Your task to perform on an android device: Add "alienware aurora" to the cart on ebay, then select checkout. Image 0: 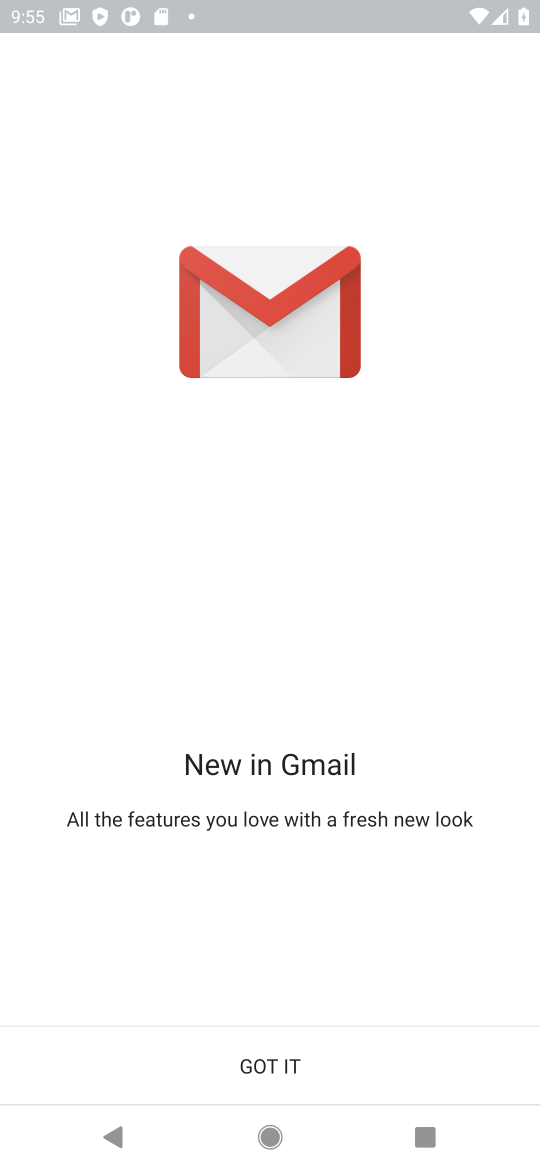
Step 0: press home button
Your task to perform on an android device: Add "alienware aurora" to the cart on ebay, then select checkout. Image 1: 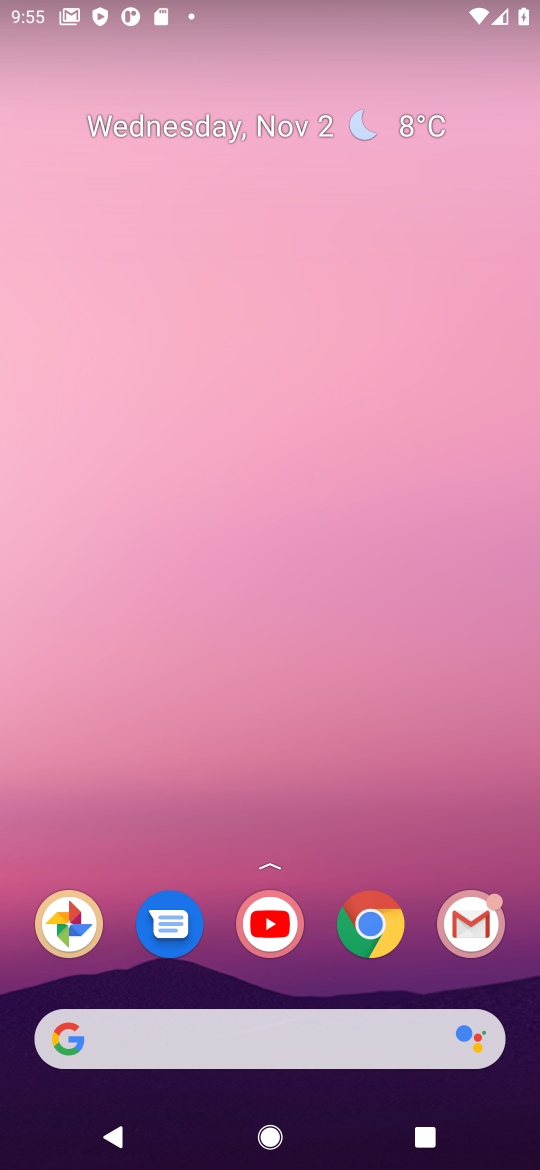
Step 1: click (381, 941)
Your task to perform on an android device: Add "alienware aurora" to the cart on ebay, then select checkout. Image 2: 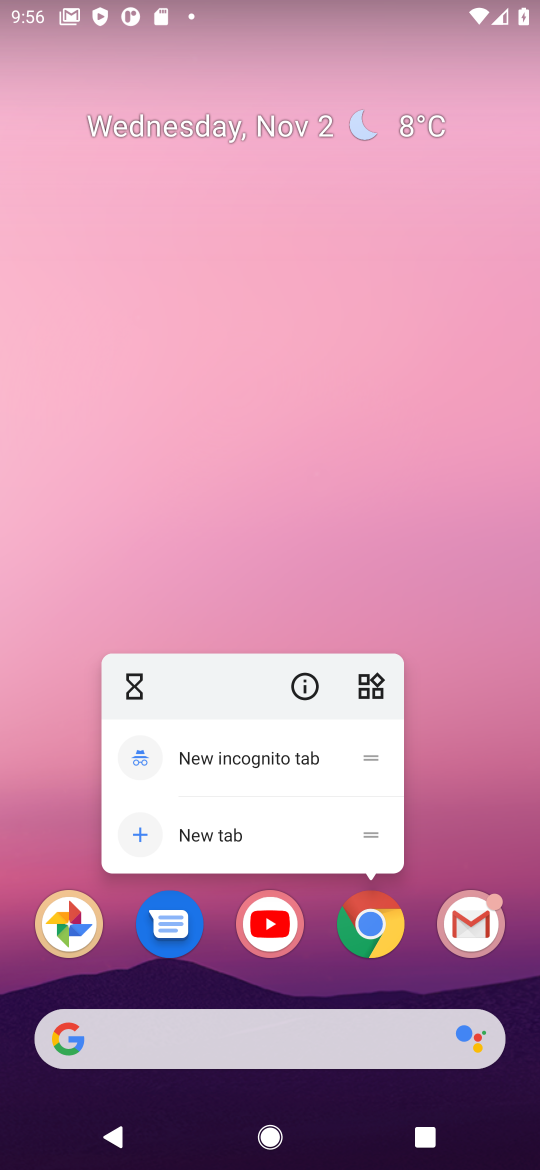
Step 2: click (381, 935)
Your task to perform on an android device: Add "alienware aurora" to the cart on ebay, then select checkout. Image 3: 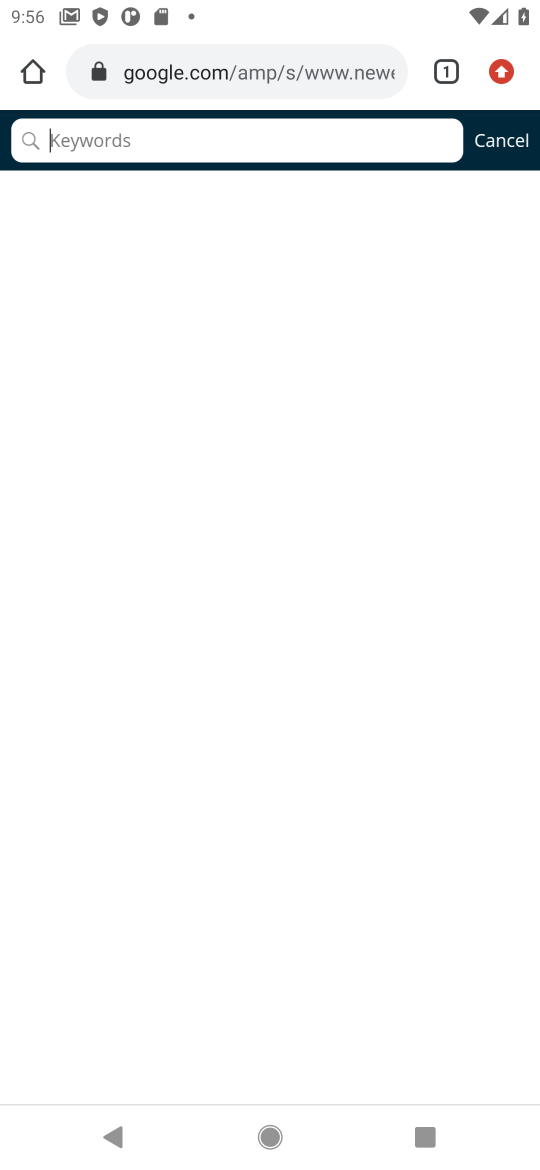
Step 3: click (162, 78)
Your task to perform on an android device: Add "alienware aurora" to the cart on ebay, then select checkout. Image 4: 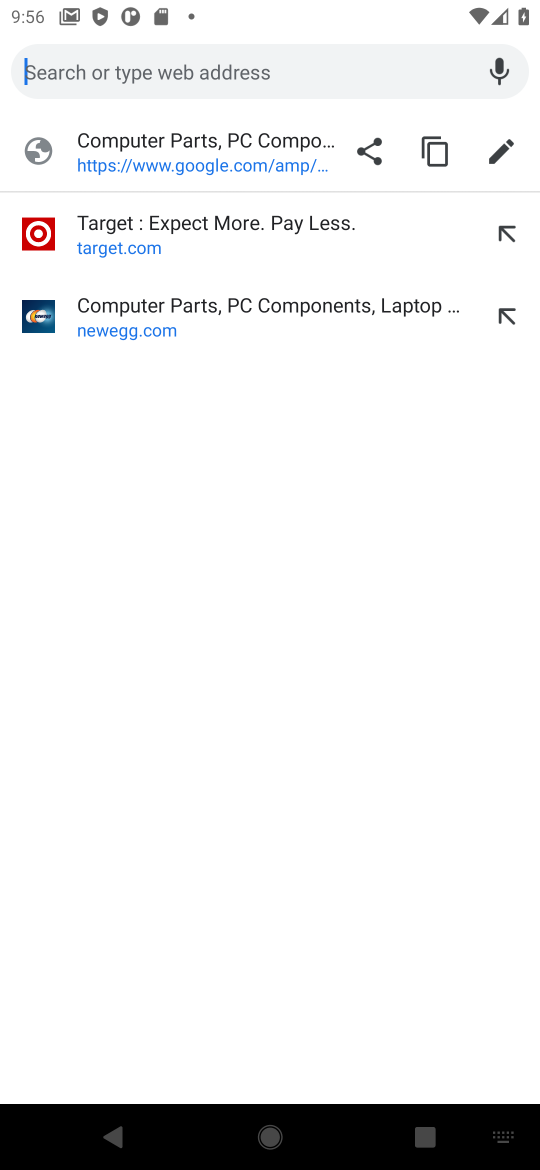
Step 4: type "ebay"
Your task to perform on an android device: Add "alienware aurora" to the cart on ebay, then select checkout. Image 5: 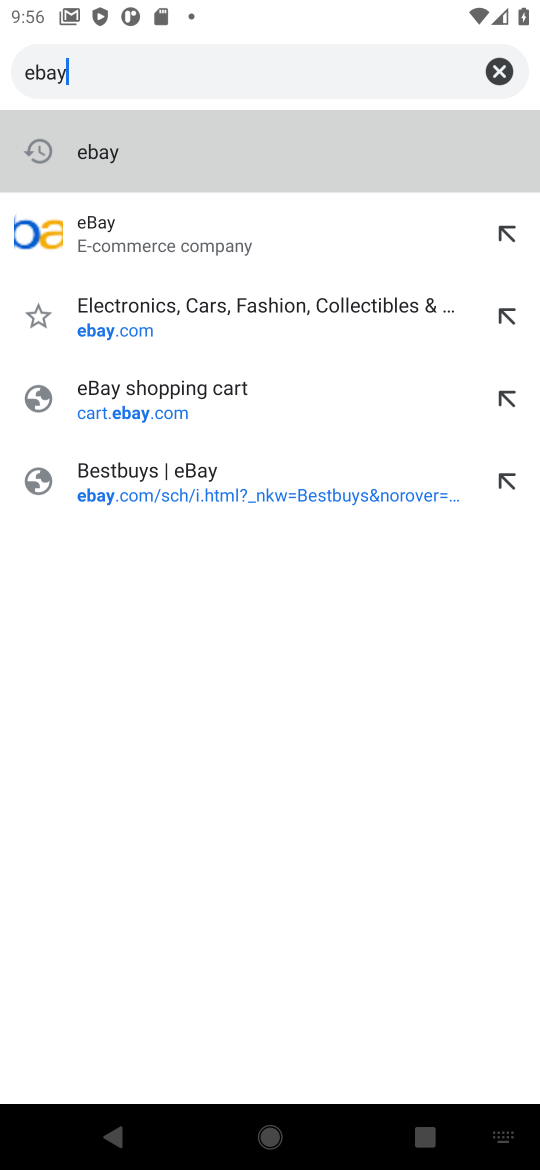
Step 5: click (147, 233)
Your task to perform on an android device: Add "alienware aurora" to the cart on ebay, then select checkout. Image 6: 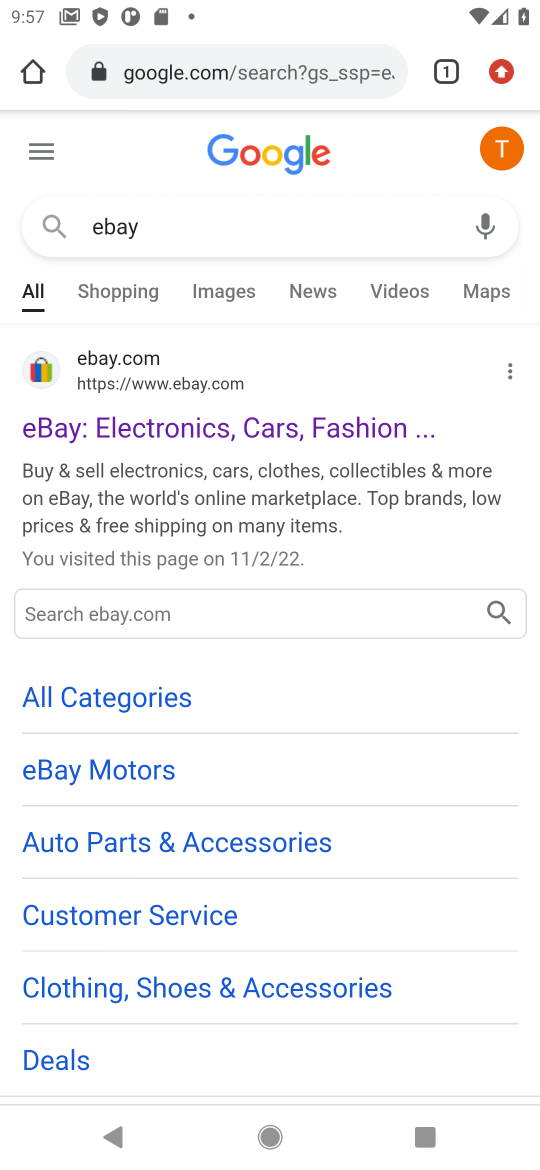
Step 6: click (125, 426)
Your task to perform on an android device: Add "alienware aurora" to the cart on ebay, then select checkout. Image 7: 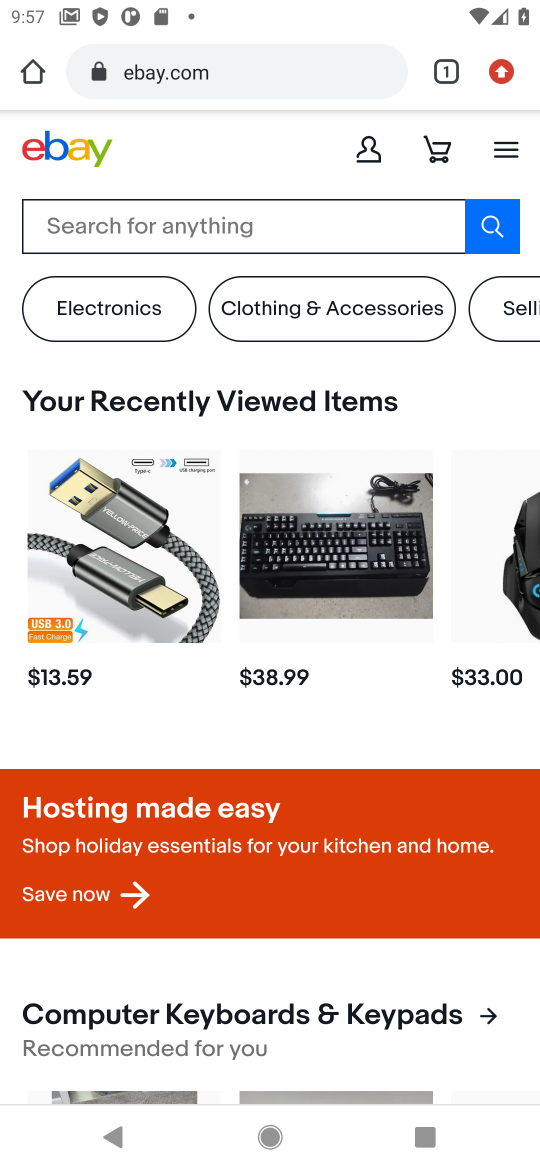
Step 7: click (217, 220)
Your task to perform on an android device: Add "alienware aurora" to the cart on ebay, then select checkout. Image 8: 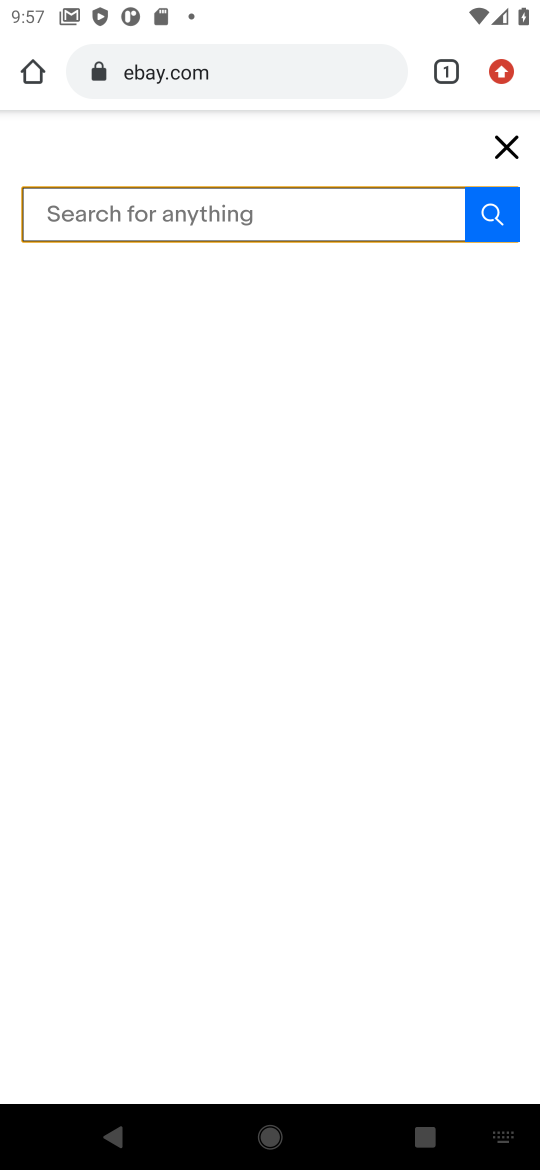
Step 8: type "alienware aurora"
Your task to perform on an android device: Add "alienware aurora" to the cart on ebay, then select checkout. Image 9: 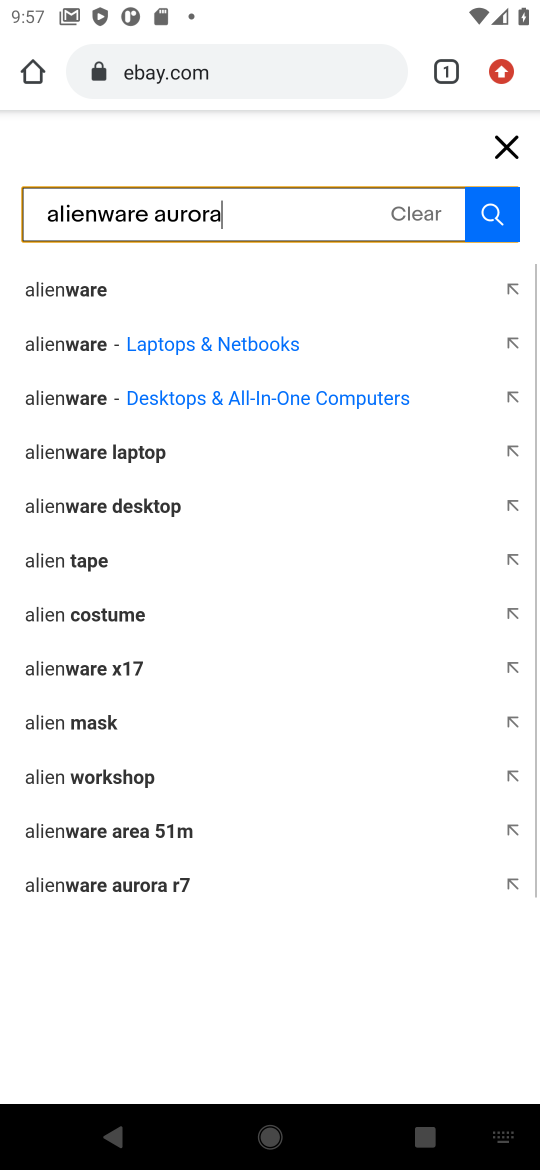
Step 9: type ""
Your task to perform on an android device: Add "alienware aurora" to the cart on ebay, then select checkout. Image 10: 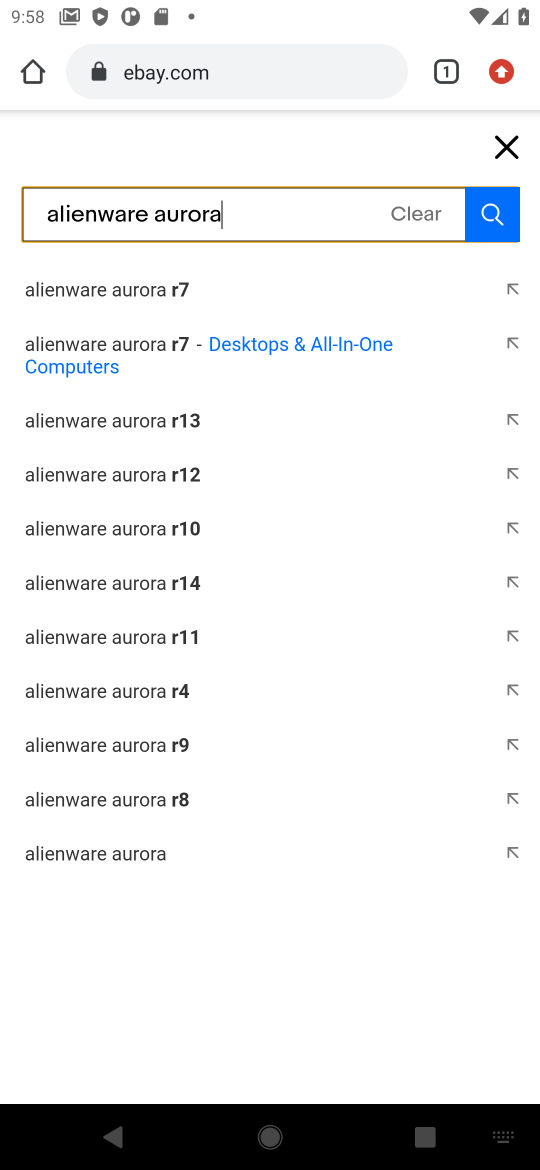
Step 10: click (145, 292)
Your task to perform on an android device: Add "alienware aurora" to the cart on ebay, then select checkout. Image 11: 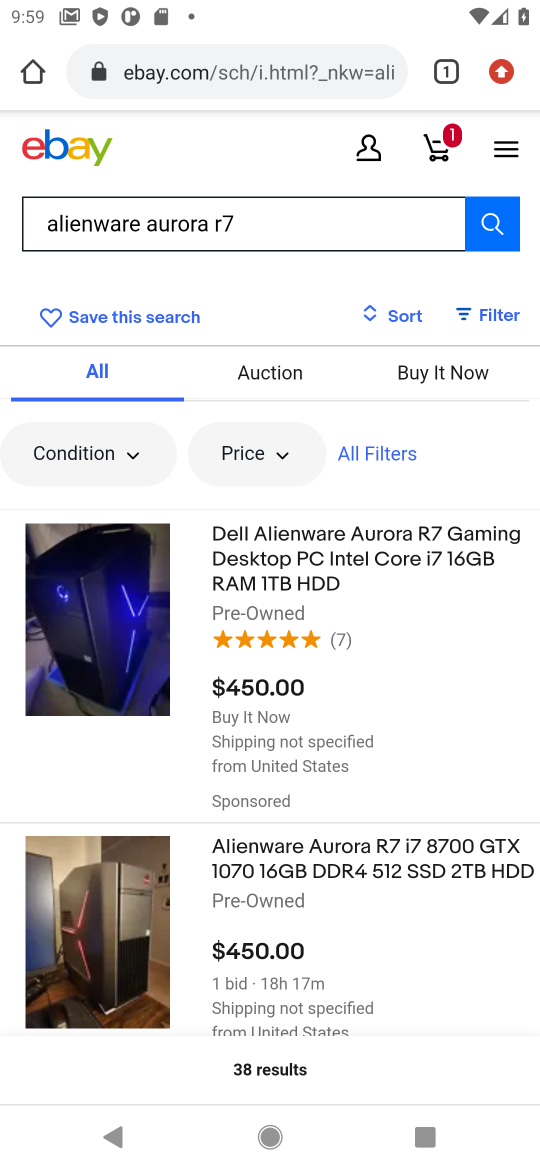
Step 11: click (319, 523)
Your task to perform on an android device: Add "alienware aurora" to the cart on ebay, then select checkout. Image 12: 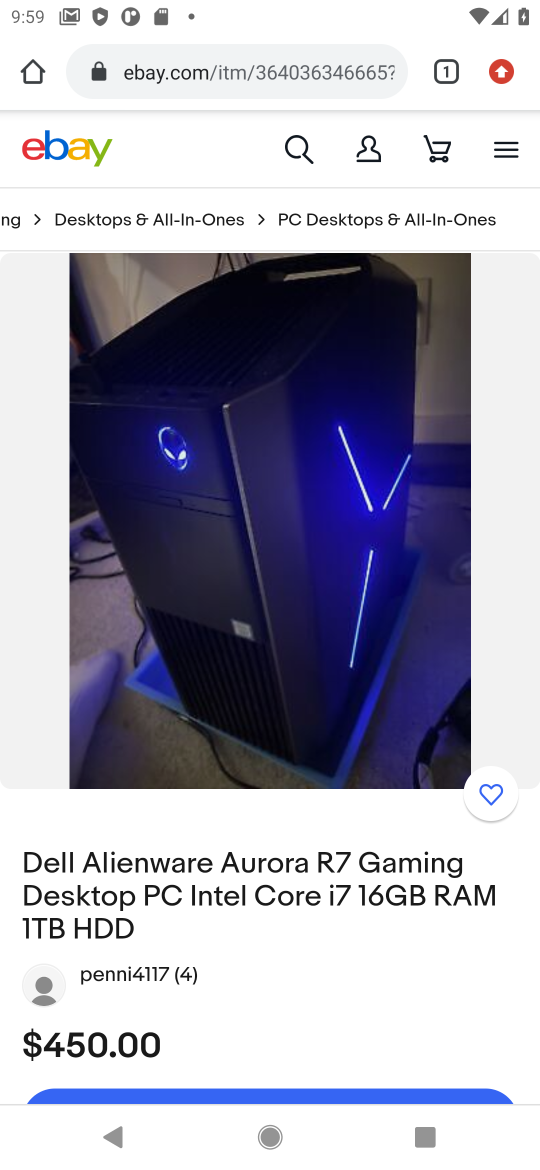
Step 12: drag from (261, 885) to (407, 242)
Your task to perform on an android device: Add "alienware aurora" to the cart on ebay, then select checkout. Image 13: 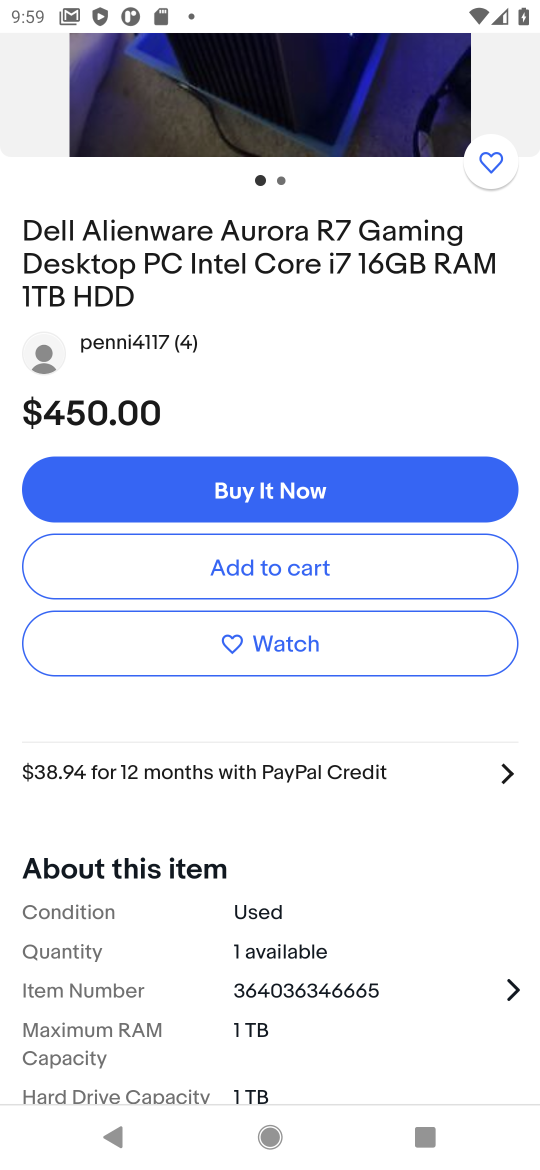
Step 13: click (252, 557)
Your task to perform on an android device: Add "alienware aurora" to the cart on ebay, then select checkout. Image 14: 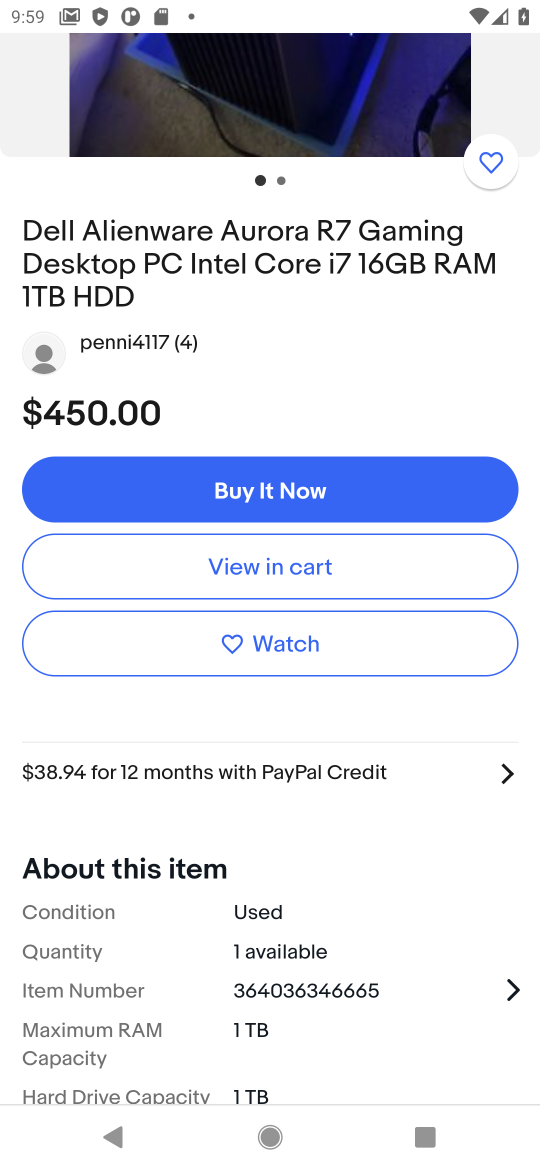
Step 14: click (252, 557)
Your task to perform on an android device: Add "alienware aurora" to the cart on ebay, then select checkout. Image 15: 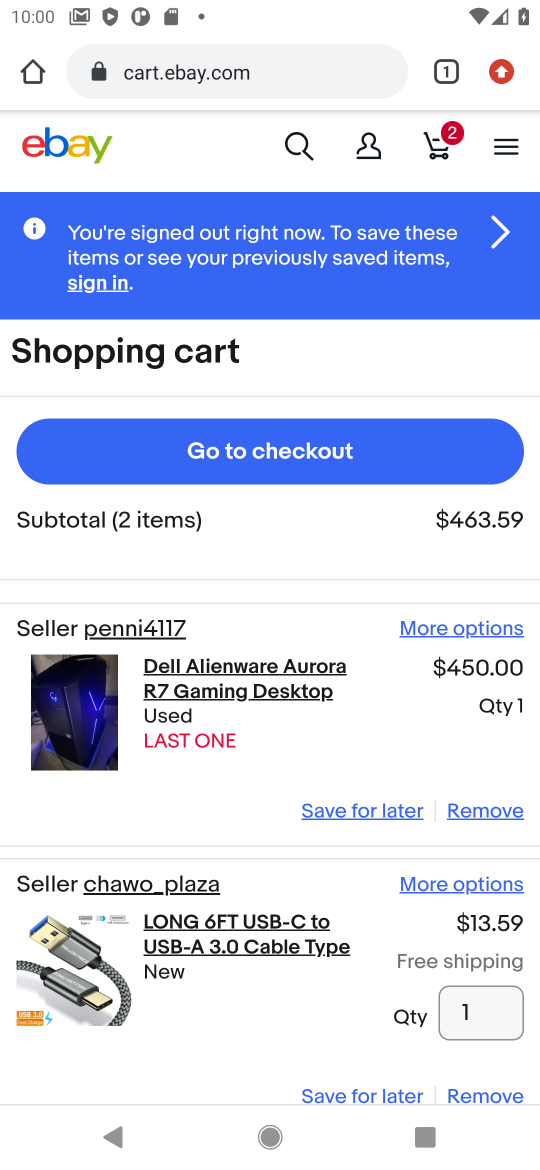
Step 15: drag from (298, 463) to (233, 323)
Your task to perform on an android device: Add "alienware aurora" to the cart on ebay, then select checkout. Image 16: 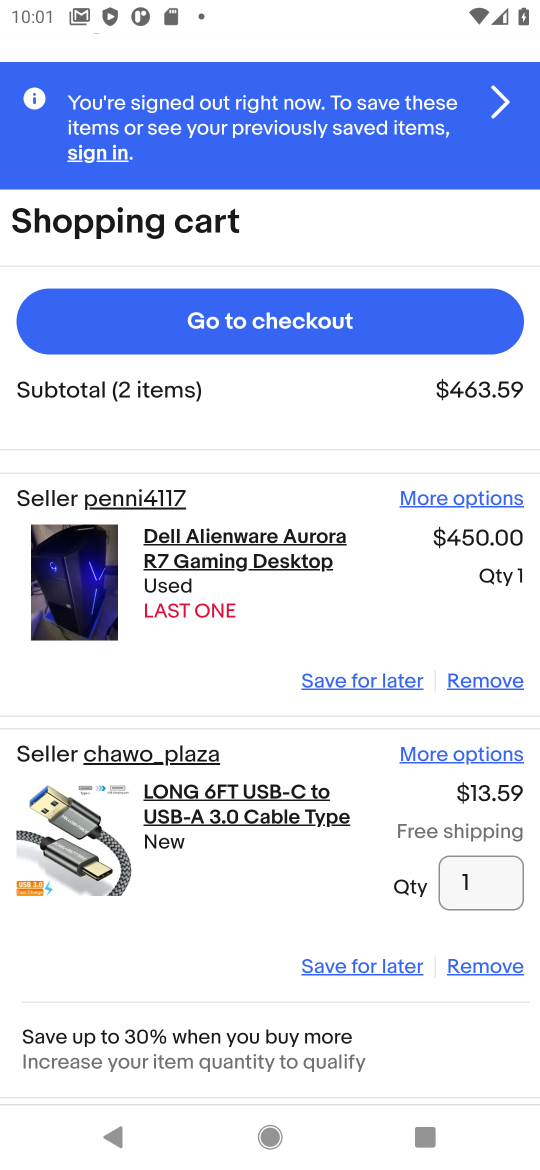
Step 16: click (195, 342)
Your task to perform on an android device: Add "alienware aurora" to the cart on ebay, then select checkout. Image 17: 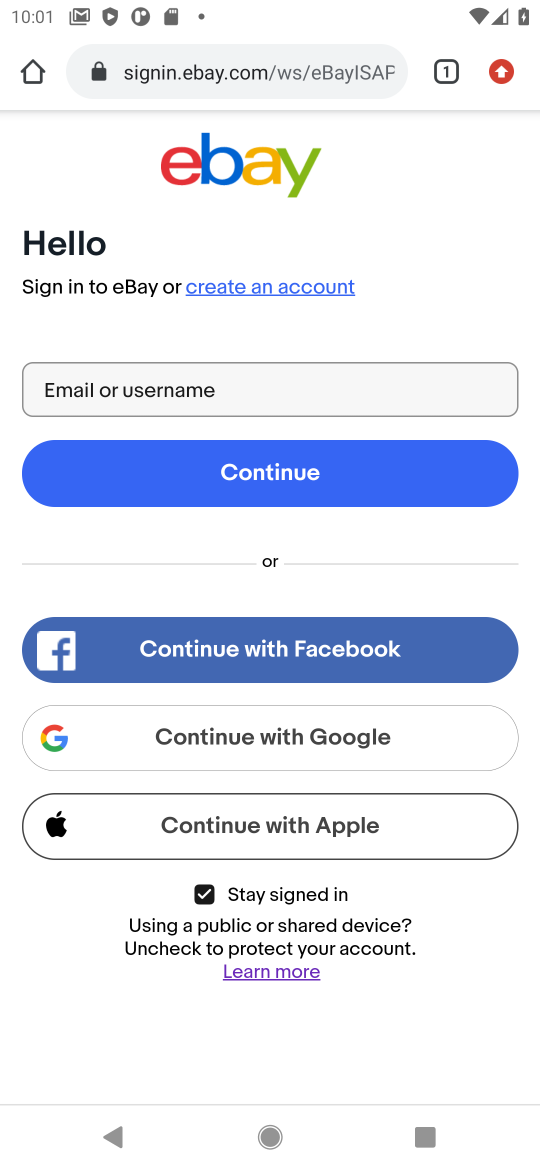
Step 17: task complete